Your task to perform on an android device: check battery use Image 0: 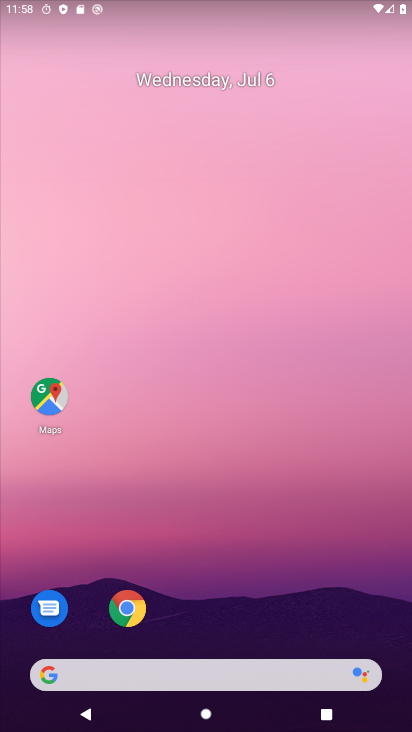
Step 0: drag from (172, 422) to (184, 17)
Your task to perform on an android device: check battery use Image 1: 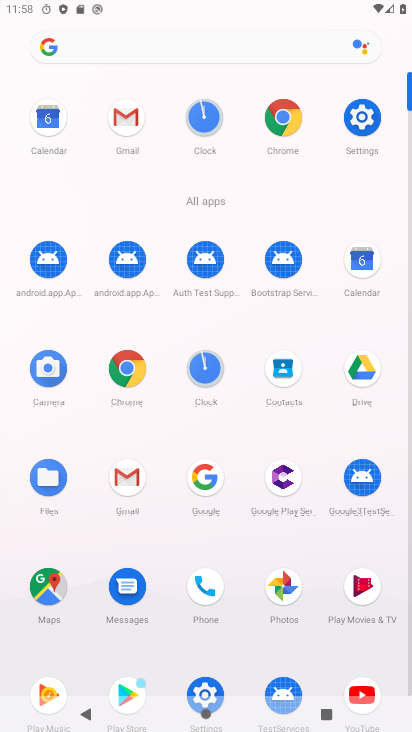
Step 1: click (356, 125)
Your task to perform on an android device: check battery use Image 2: 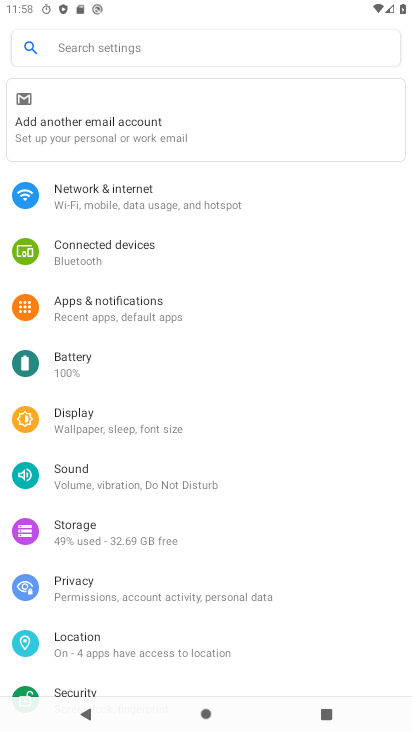
Step 2: click (68, 363)
Your task to perform on an android device: check battery use Image 3: 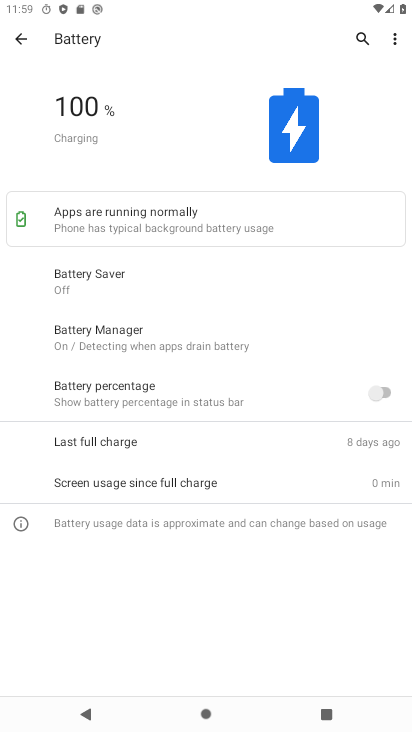
Step 3: click (257, 122)
Your task to perform on an android device: check battery use Image 4: 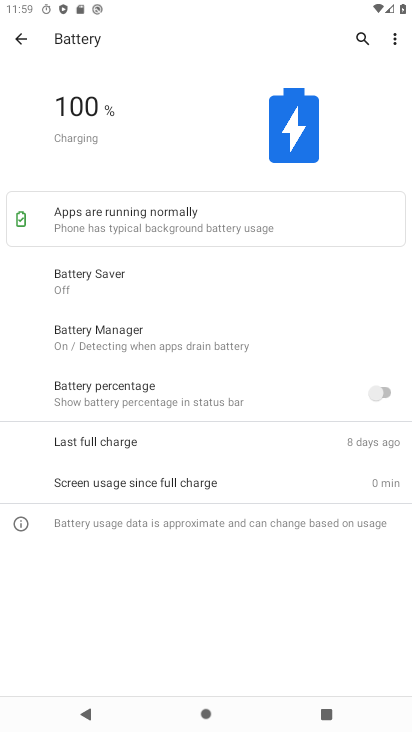
Step 4: task complete